Your task to perform on an android device: change text size in settings app Image 0: 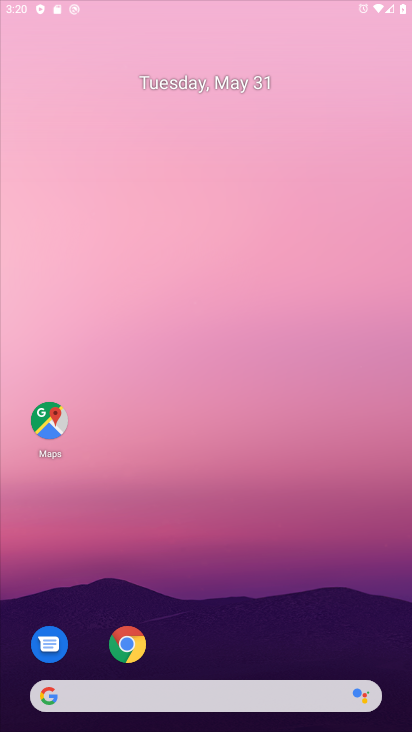
Step 0: click (411, 354)
Your task to perform on an android device: change text size in settings app Image 1: 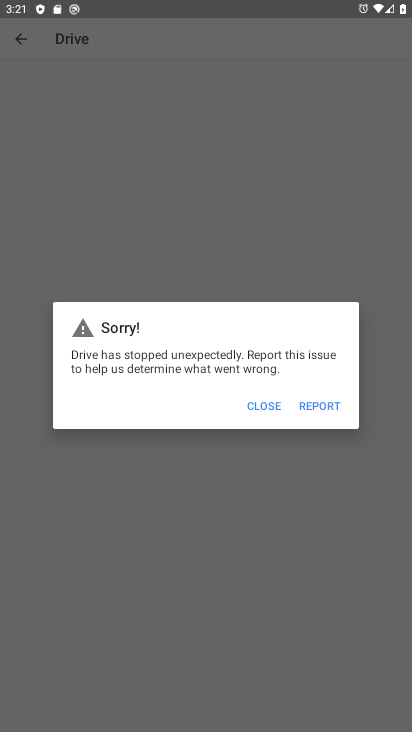
Step 1: click (252, 407)
Your task to perform on an android device: change text size in settings app Image 2: 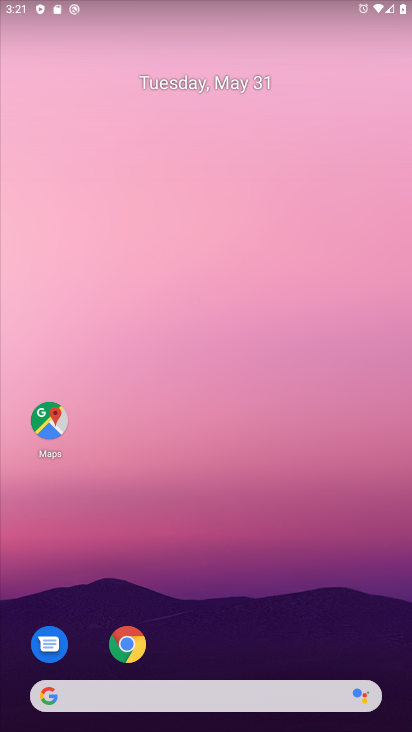
Step 2: drag from (301, 609) to (259, 213)
Your task to perform on an android device: change text size in settings app Image 3: 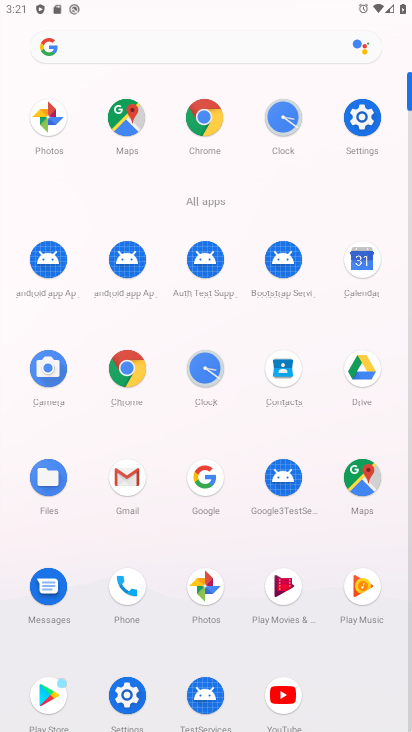
Step 3: click (122, 688)
Your task to perform on an android device: change text size in settings app Image 4: 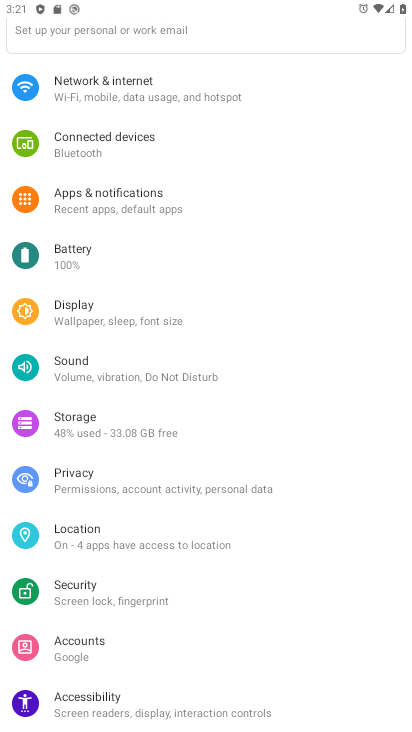
Step 4: click (139, 305)
Your task to perform on an android device: change text size in settings app Image 5: 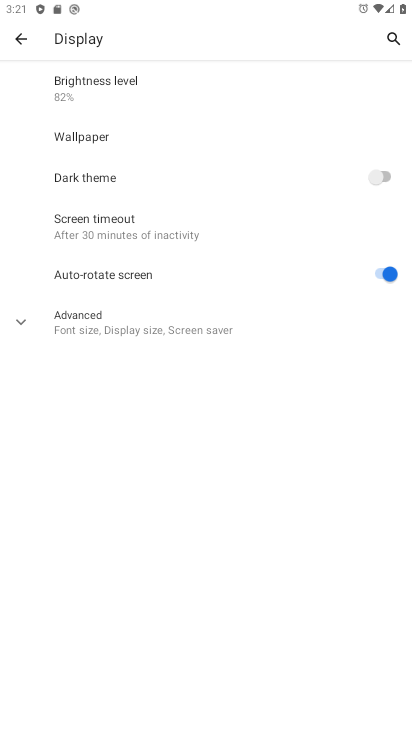
Step 5: click (172, 327)
Your task to perform on an android device: change text size in settings app Image 6: 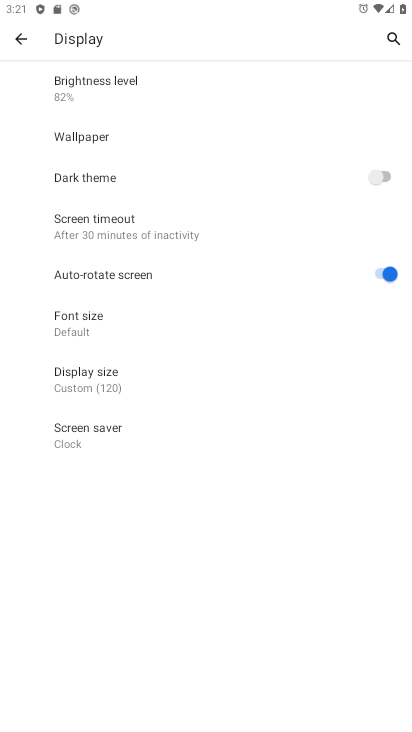
Step 6: click (227, 325)
Your task to perform on an android device: change text size in settings app Image 7: 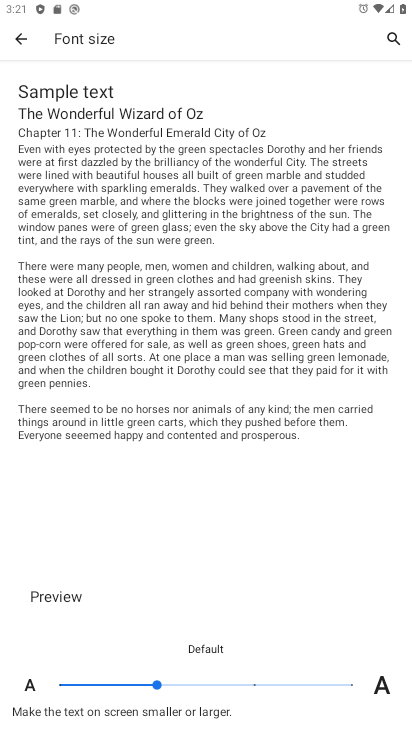
Step 7: task complete